Your task to perform on an android device: toggle data saver in the chrome app Image 0: 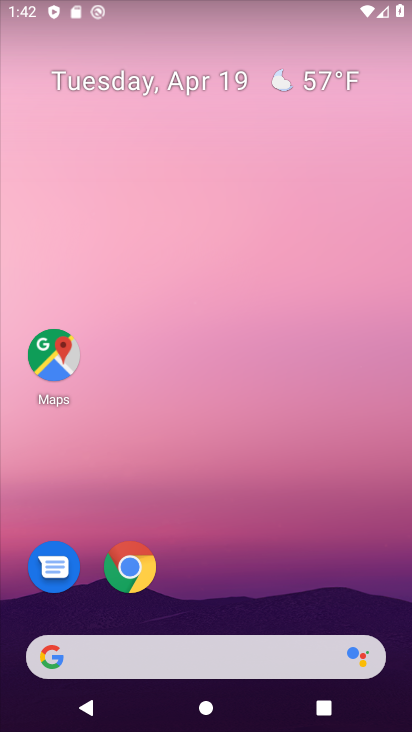
Step 0: click (240, 221)
Your task to perform on an android device: toggle data saver in the chrome app Image 1: 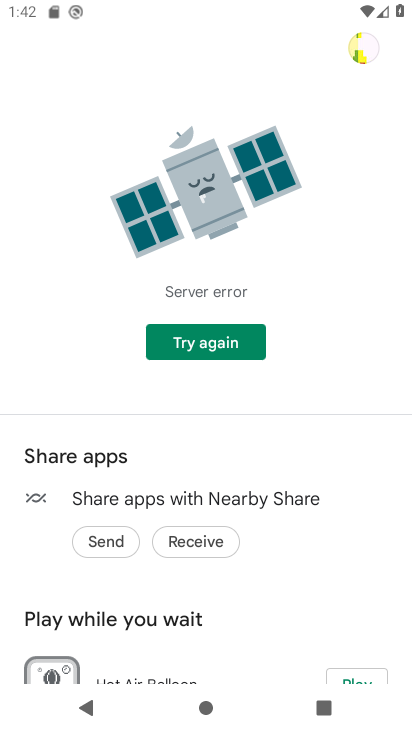
Step 1: press home button
Your task to perform on an android device: toggle data saver in the chrome app Image 2: 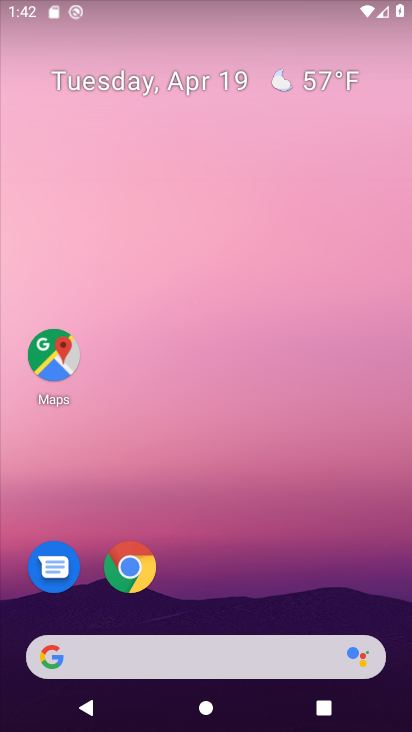
Step 2: click (121, 563)
Your task to perform on an android device: toggle data saver in the chrome app Image 3: 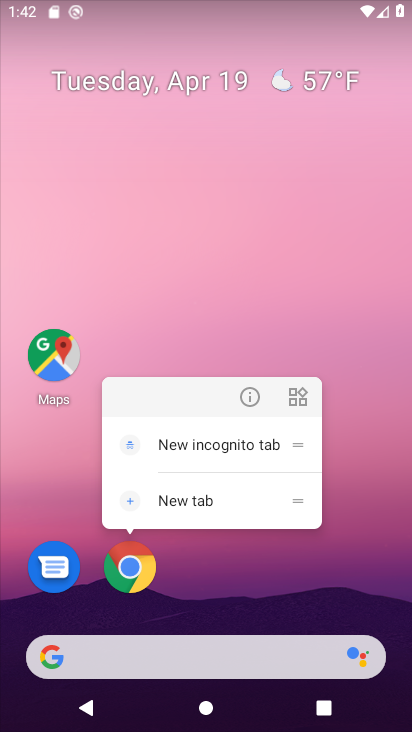
Step 3: click (137, 566)
Your task to perform on an android device: toggle data saver in the chrome app Image 4: 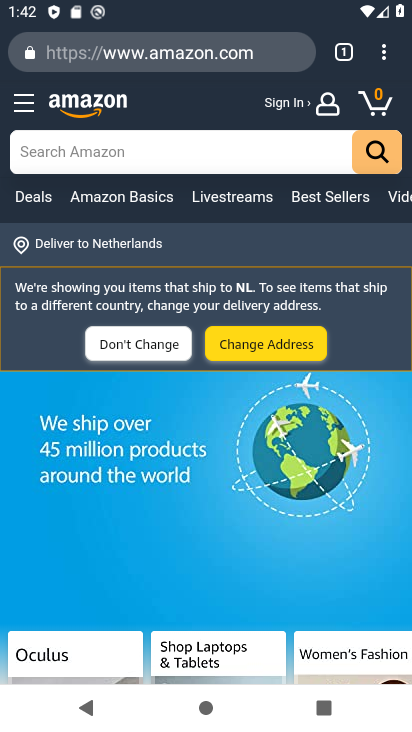
Step 4: click (382, 52)
Your task to perform on an android device: toggle data saver in the chrome app Image 5: 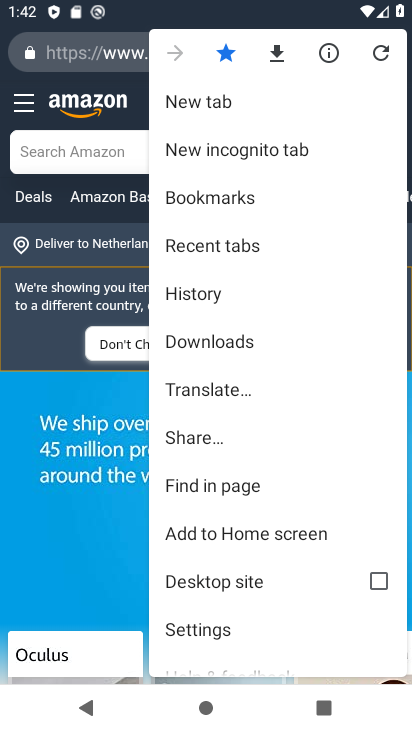
Step 5: click (269, 634)
Your task to perform on an android device: toggle data saver in the chrome app Image 6: 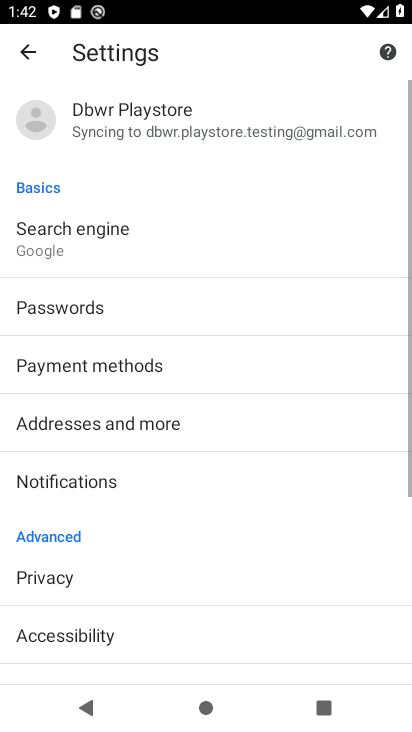
Step 6: drag from (272, 587) to (242, 207)
Your task to perform on an android device: toggle data saver in the chrome app Image 7: 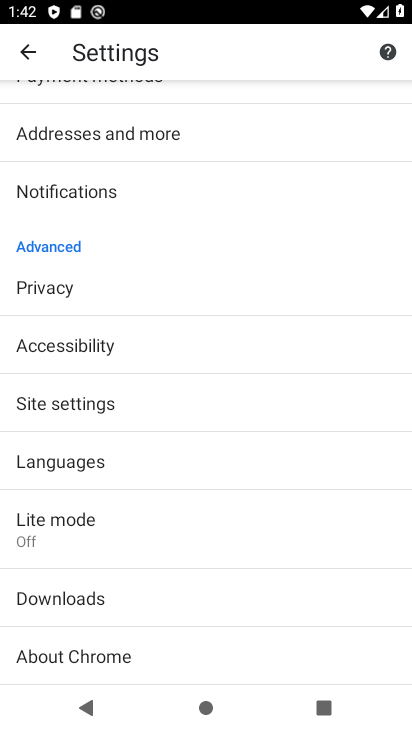
Step 7: click (88, 525)
Your task to perform on an android device: toggle data saver in the chrome app Image 8: 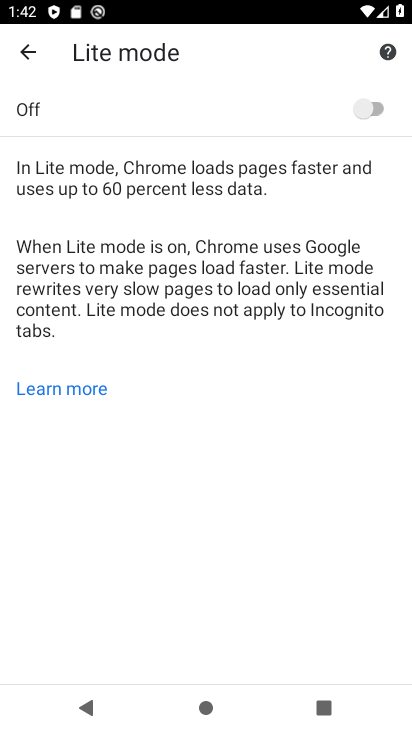
Step 8: click (369, 95)
Your task to perform on an android device: toggle data saver in the chrome app Image 9: 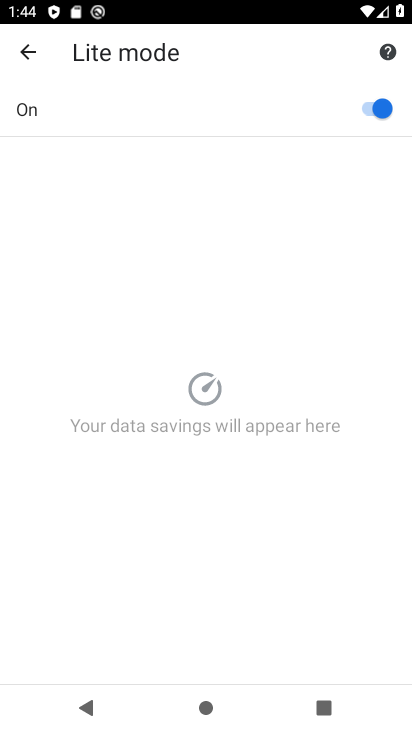
Step 9: task complete